Your task to perform on an android device: Open the calendar app, open the side menu, and click the "Day" option Image 0: 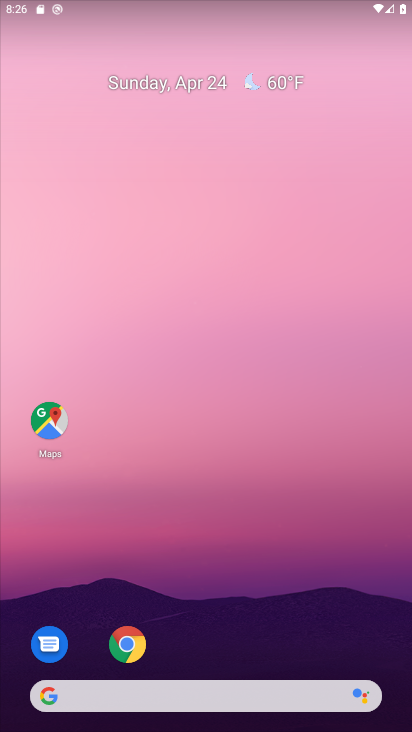
Step 0: press home button
Your task to perform on an android device: Open the calendar app, open the side menu, and click the "Day" option Image 1: 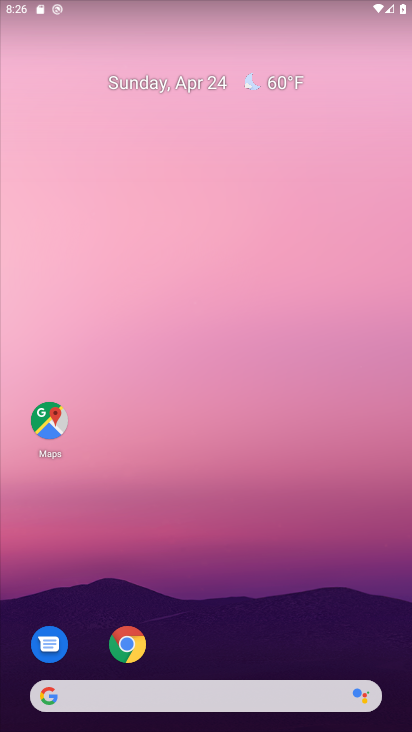
Step 1: press home button
Your task to perform on an android device: Open the calendar app, open the side menu, and click the "Day" option Image 2: 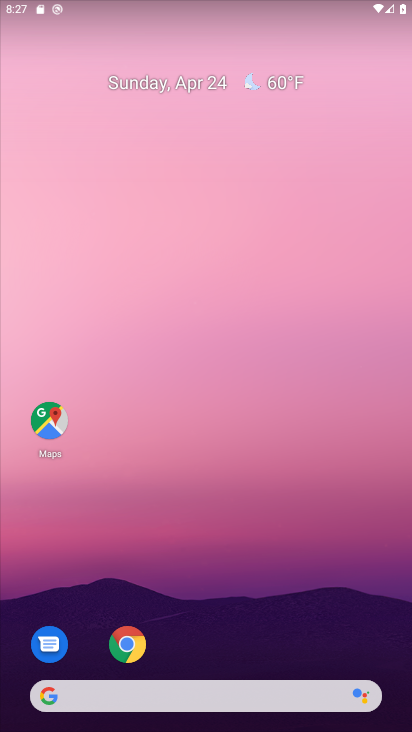
Step 2: drag from (214, 654) to (232, 76)
Your task to perform on an android device: Open the calendar app, open the side menu, and click the "Day" option Image 3: 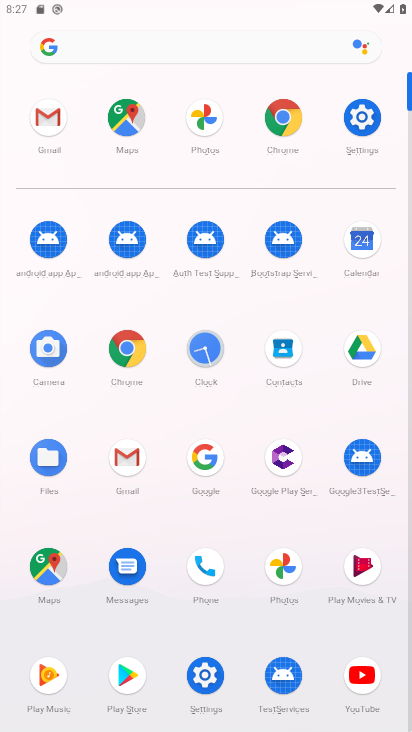
Step 3: click (357, 234)
Your task to perform on an android device: Open the calendar app, open the side menu, and click the "Day" option Image 4: 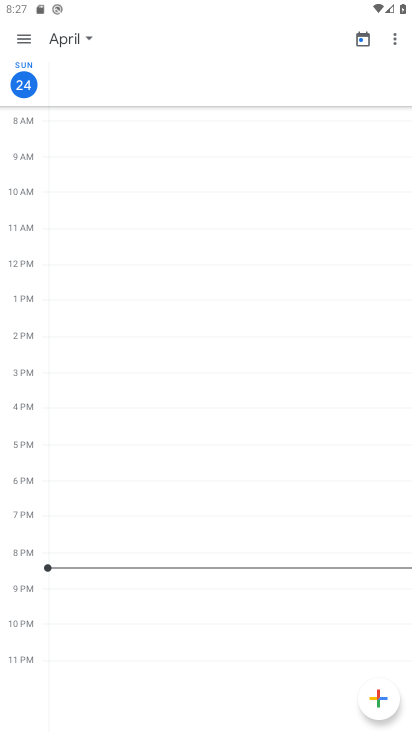
Step 4: click (25, 89)
Your task to perform on an android device: Open the calendar app, open the side menu, and click the "Day" option Image 5: 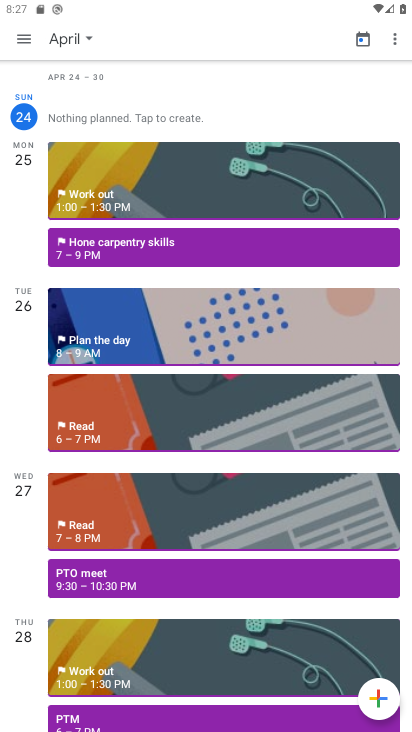
Step 5: click (20, 29)
Your task to perform on an android device: Open the calendar app, open the side menu, and click the "Day" option Image 6: 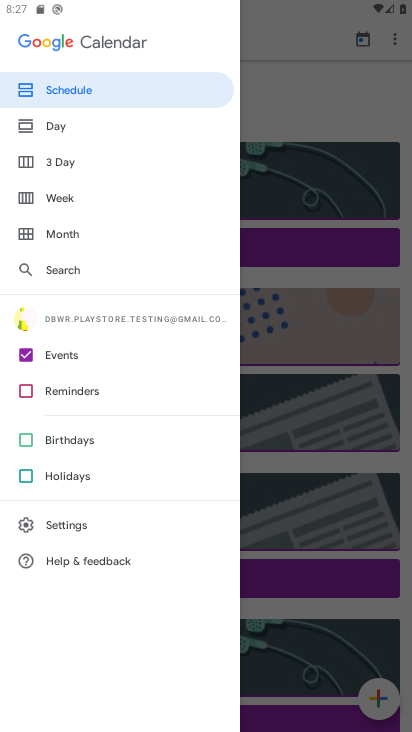
Step 6: click (37, 121)
Your task to perform on an android device: Open the calendar app, open the side menu, and click the "Day" option Image 7: 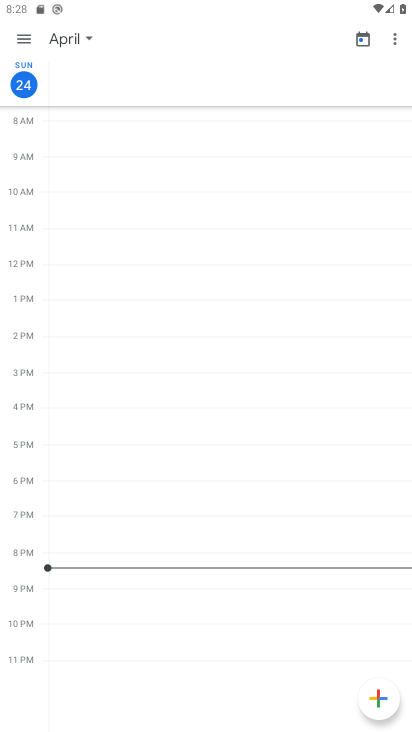
Step 7: task complete